Your task to perform on an android device: Open maps Image 0: 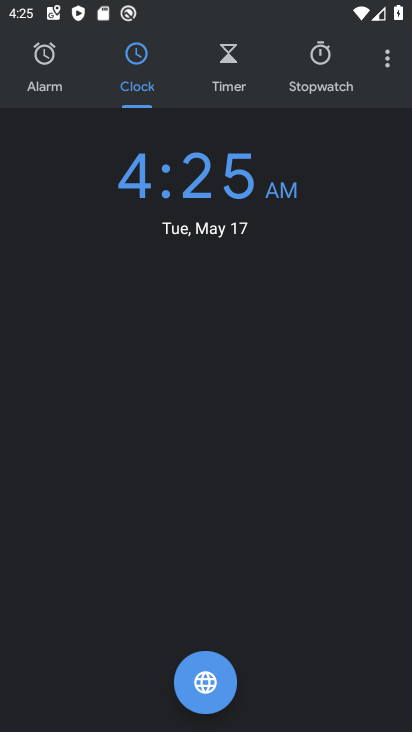
Step 0: press home button
Your task to perform on an android device: Open maps Image 1: 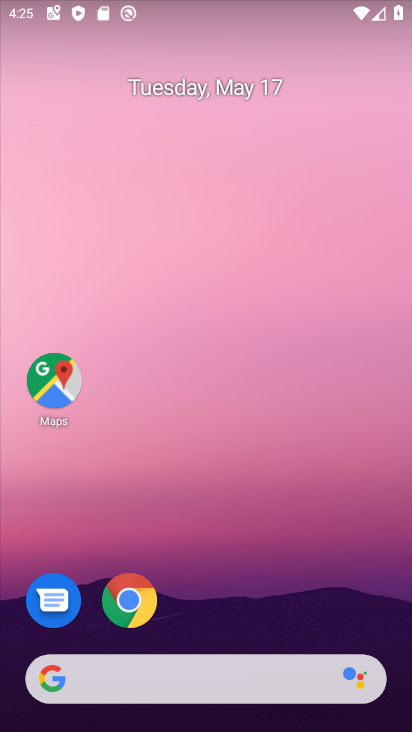
Step 1: click (65, 355)
Your task to perform on an android device: Open maps Image 2: 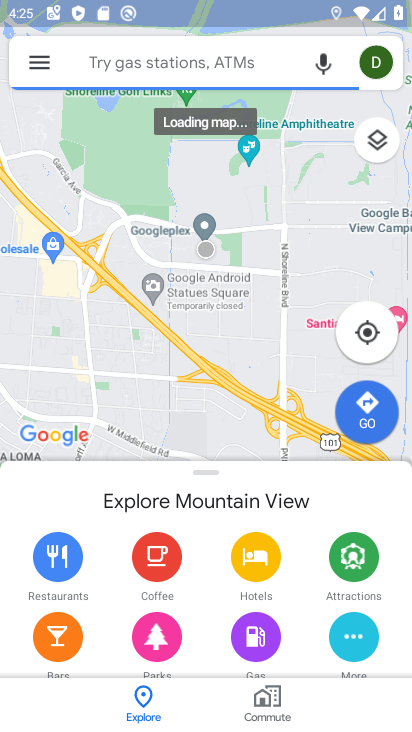
Step 2: task complete